Your task to perform on an android device: Show me popular videos on Youtube Image 0: 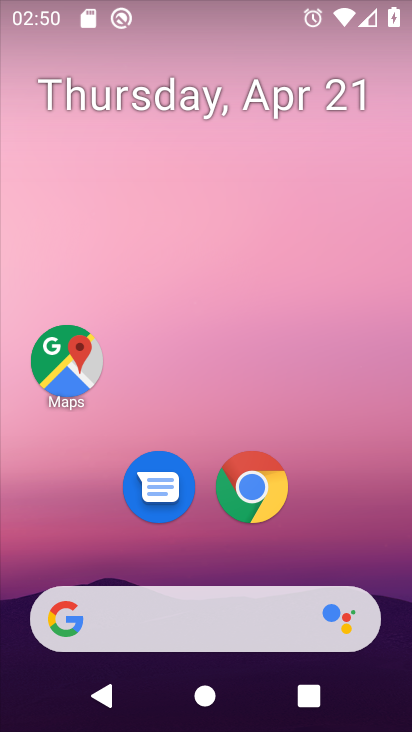
Step 0: click (291, 93)
Your task to perform on an android device: Show me popular videos on Youtube Image 1: 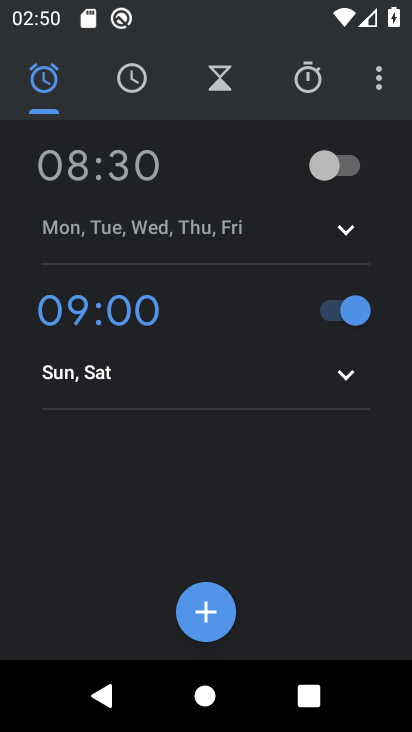
Step 1: press home button
Your task to perform on an android device: Show me popular videos on Youtube Image 2: 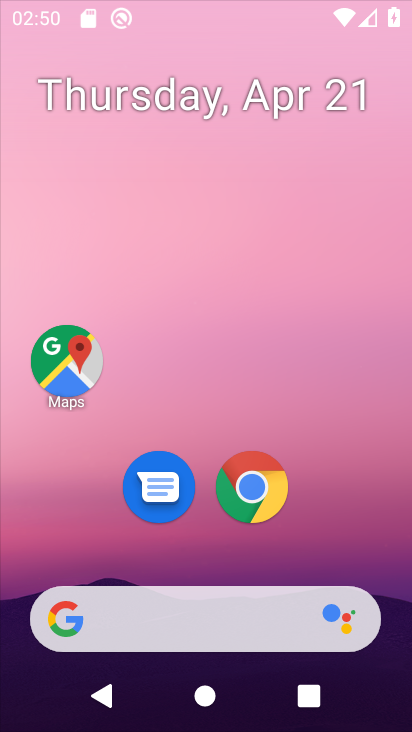
Step 2: drag from (200, 487) to (282, 101)
Your task to perform on an android device: Show me popular videos on Youtube Image 3: 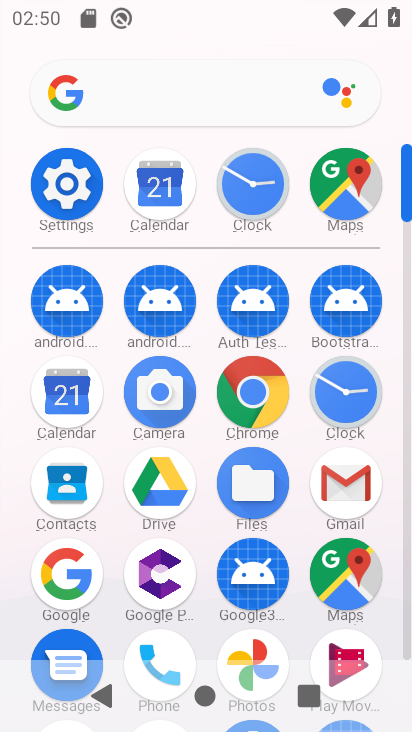
Step 3: drag from (204, 642) to (225, 235)
Your task to perform on an android device: Show me popular videos on Youtube Image 4: 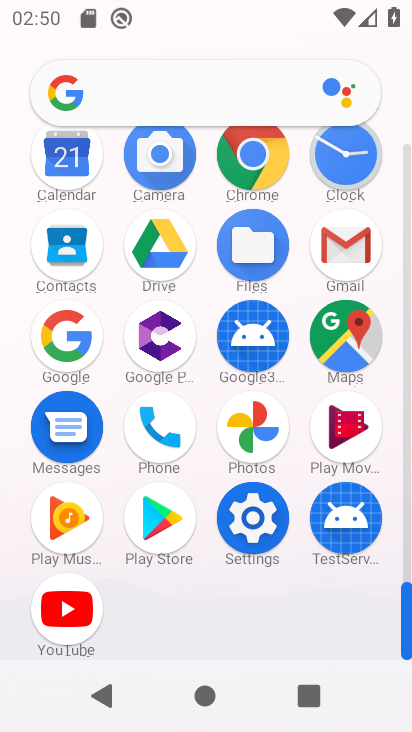
Step 4: click (77, 598)
Your task to perform on an android device: Show me popular videos on Youtube Image 5: 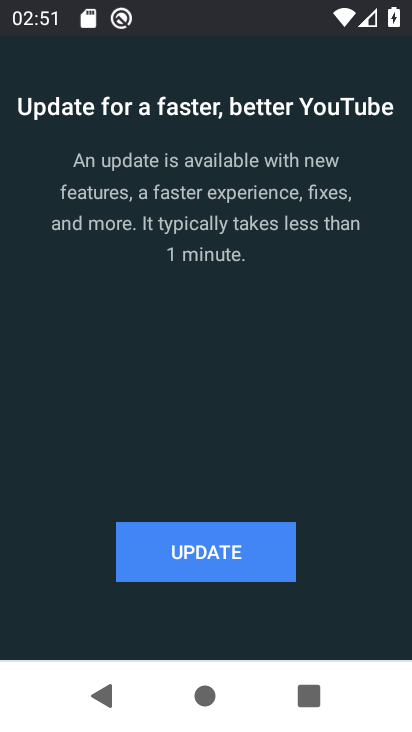
Step 5: task complete